Your task to perform on an android device: Clear the cart on walmart.com. Image 0: 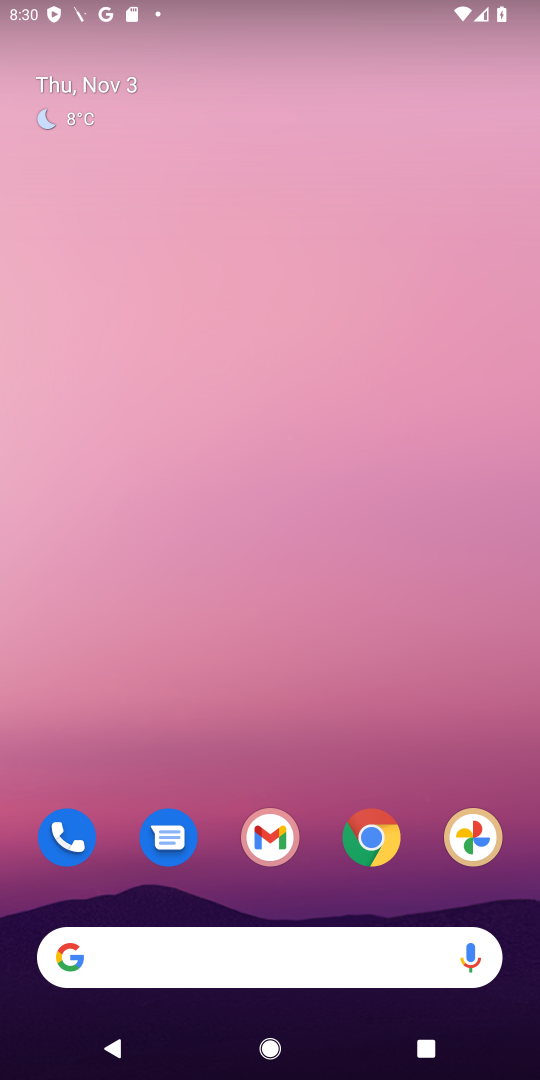
Step 0: click (379, 837)
Your task to perform on an android device: Clear the cart on walmart.com. Image 1: 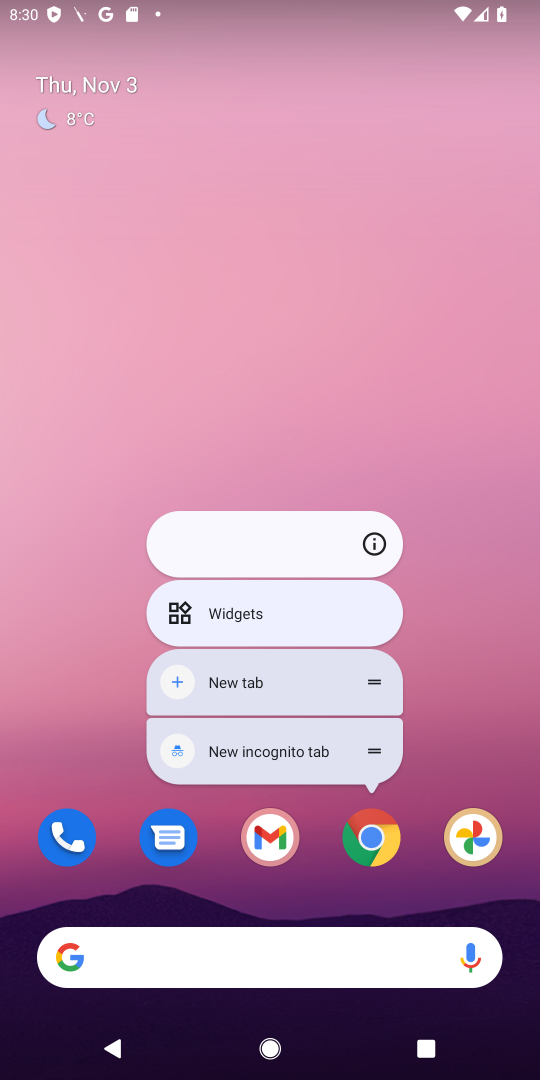
Step 1: click (374, 841)
Your task to perform on an android device: Clear the cart on walmart.com. Image 2: 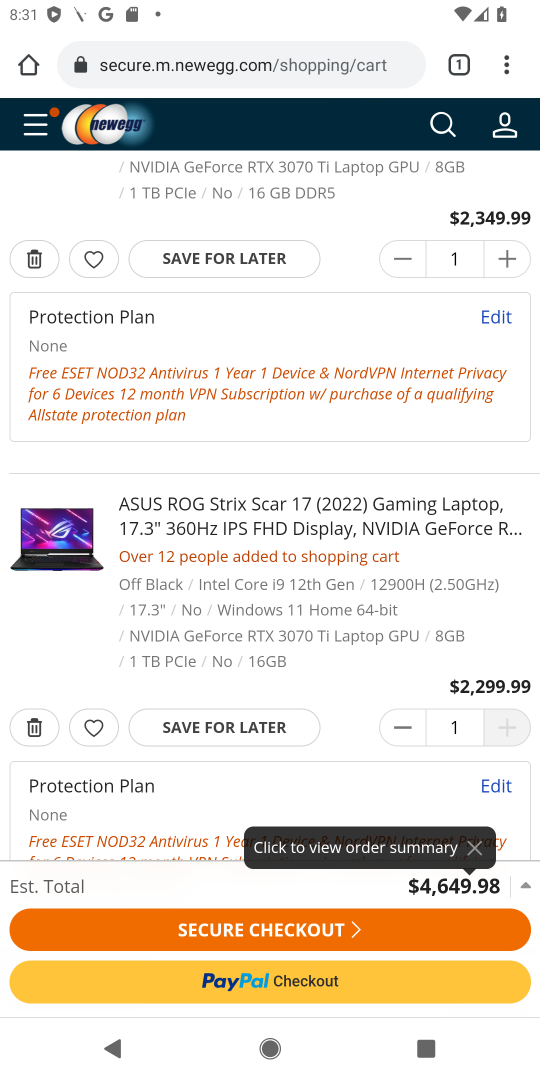
Step 2: click (261, 52)
Your task to perform on an android device: Clear the cart on walmart.com. Image 3: 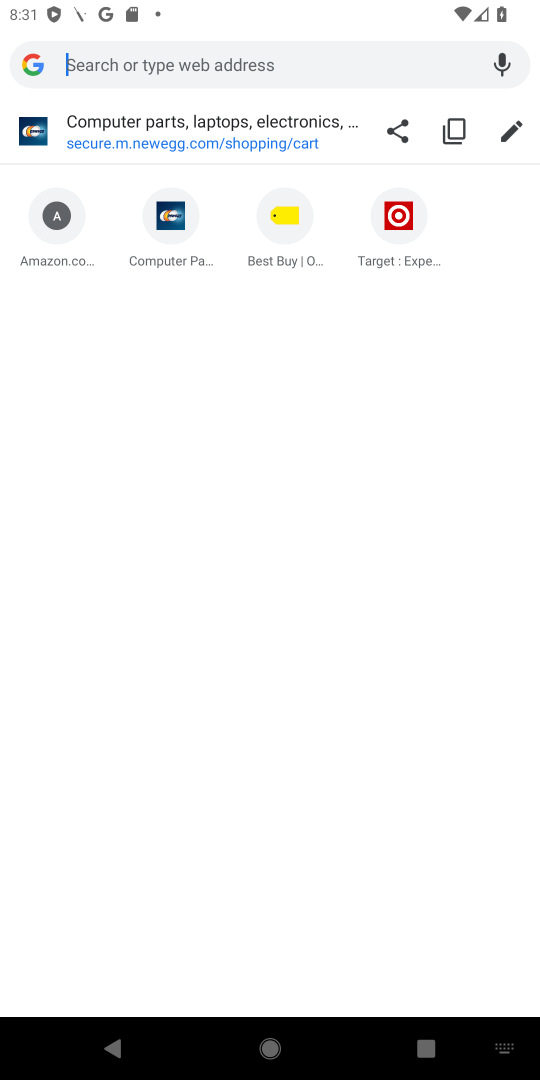
Step 3: type " walmart.com"
Your task to perform on an android device: Clear the cart on walmart.com. Image 4: 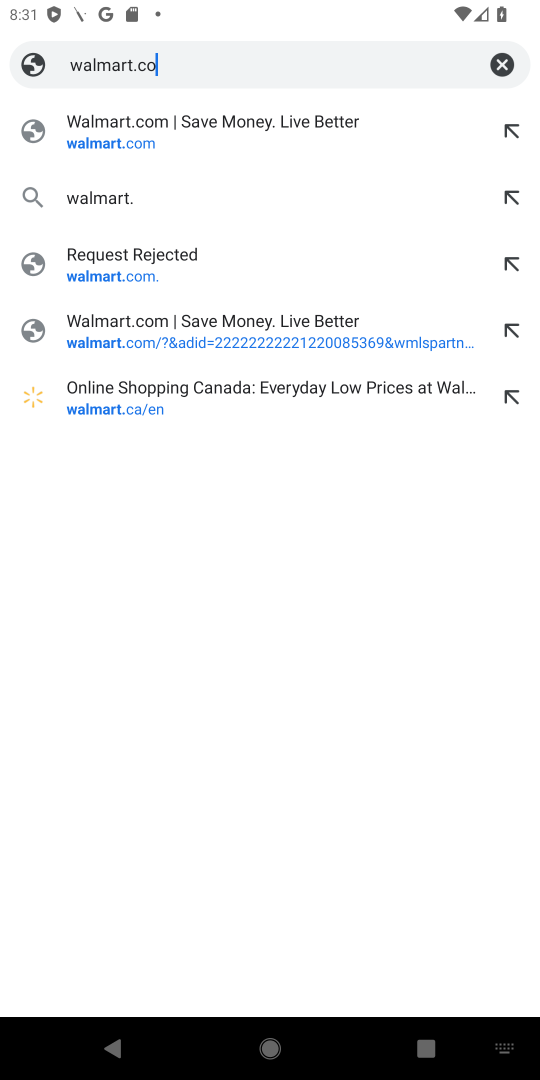
Step 4: press enter
Your task to perform on an android device: Clear the cart on walmart.com. Image 5: 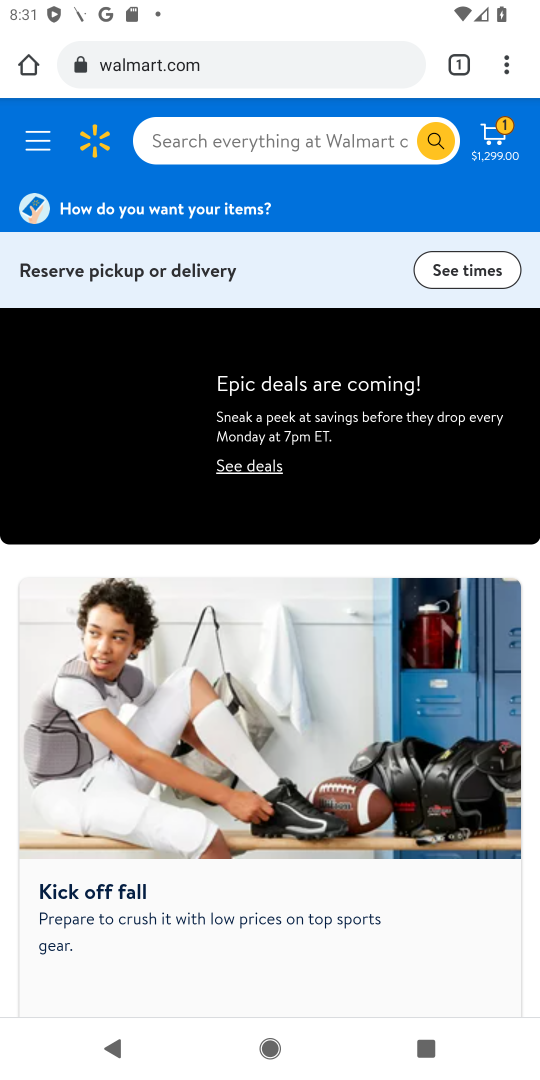
Step 5: click (499, 133)
Your task to perform on an android device: Clear the cart on walmart.com. Image 6: 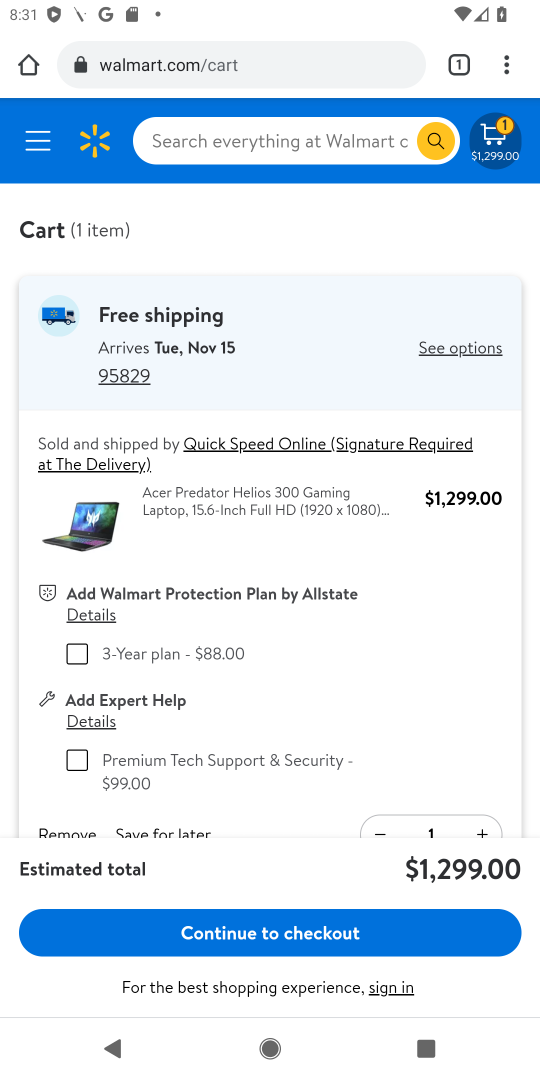
Step 6: drag from (201, 799) to (354, 522)
Your task to perform on an android device: Clear the cart on walmart.com. Image 7: 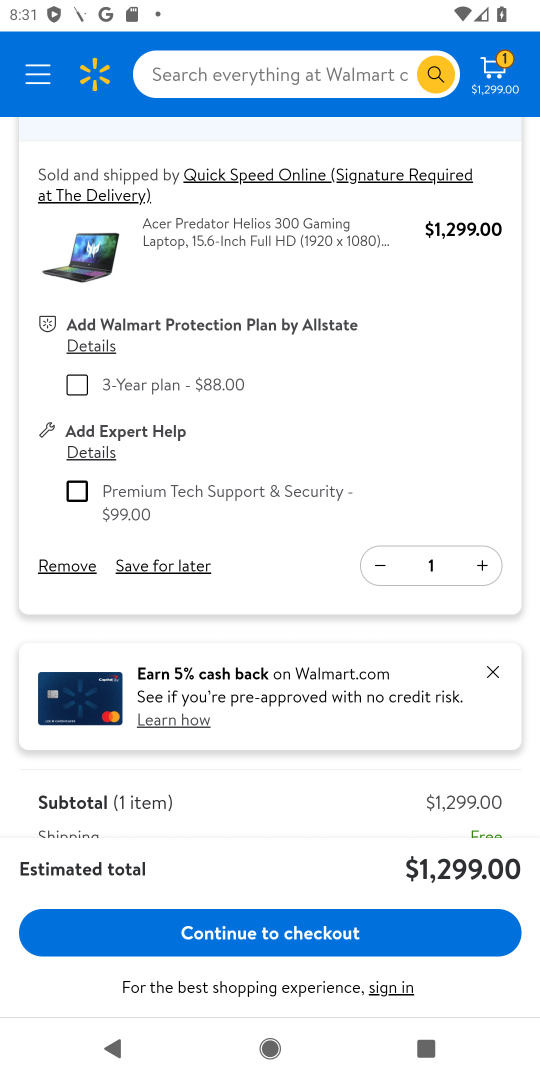
Step 7: click (66, 567)
Your task to perform on an android device: Clear the cart on walmart.com. Image 8: 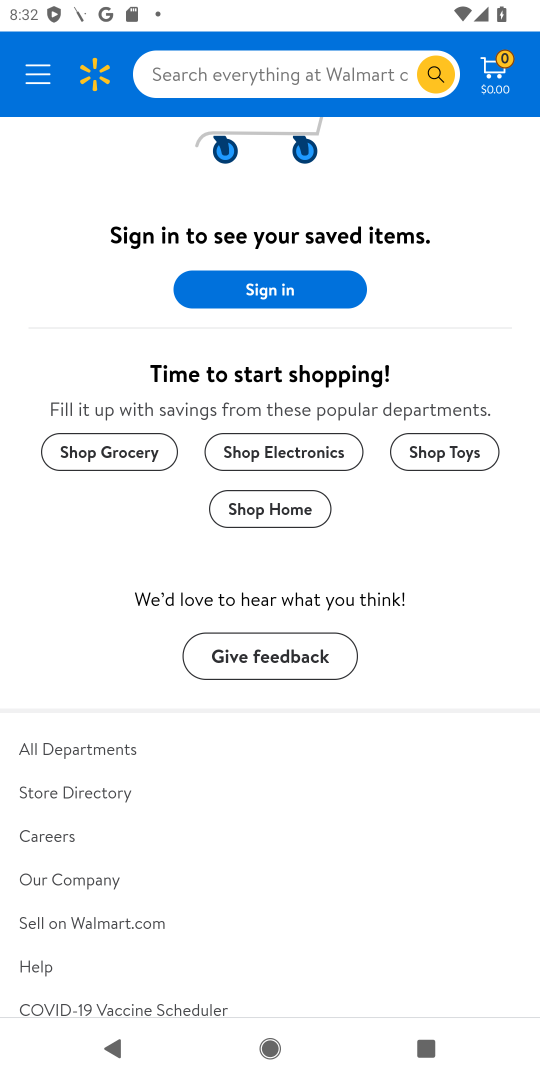
Step 8: task complete